Your task to perform on an android device: Open maps Image 0: 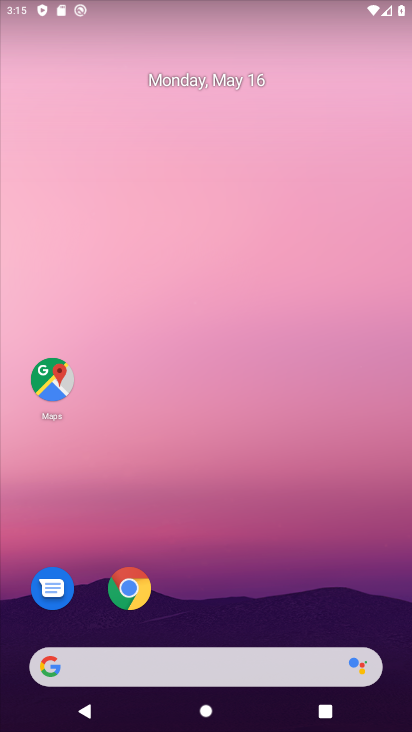
Step 0: click (59, 379)
Your task to perform on an android device: Open maps Image 1: 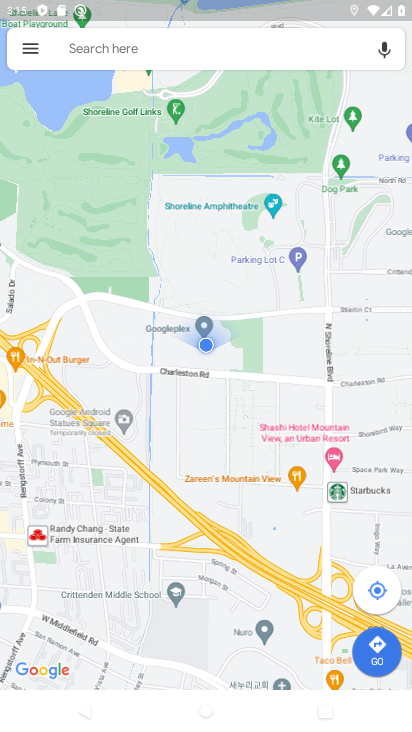
Step 1: task complete